Your task to perform on an android device: check the backup settings in the google photos Image 0: 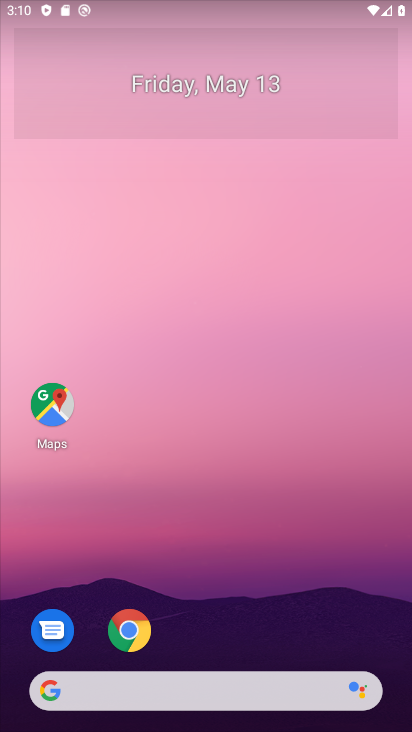
Step 0: drag from (192, 665) to (230, 6)
Your task to perform on an android device: check the backup settings in the google photos Image 1: 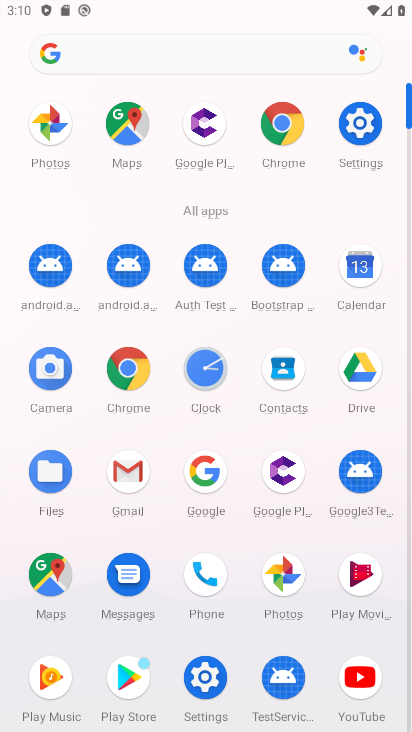
Step 1: click (272, 581)
Your task to perform on an android device: check the backup settings in the google photos Image 2: 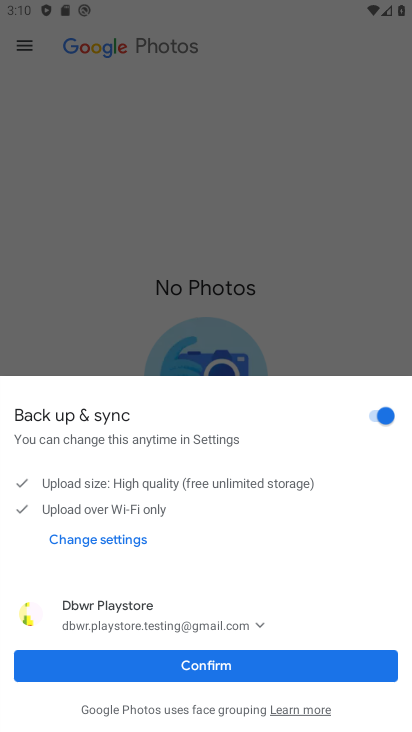
Step 2: click (126, 546)
Your task to perform on an android device: check the backup settings in the google photos Image 3: 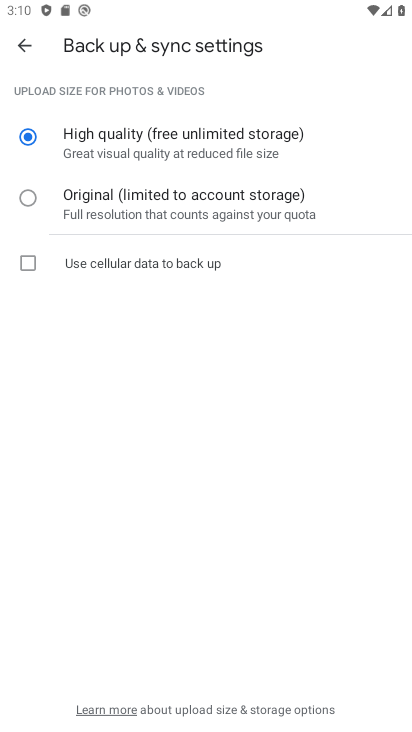
Step 3: click (21, 35)
Your task to perform on an android device: check the backup settings in the google photos Image 4: 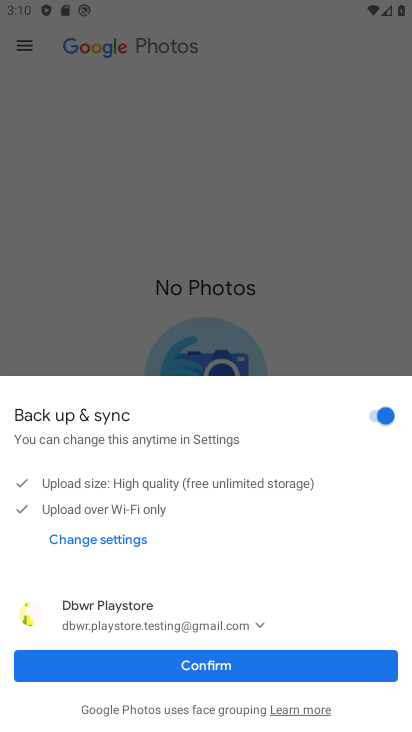
Step 4: task complete